Your task to perform on an android device: Open the SMS app Image 0: 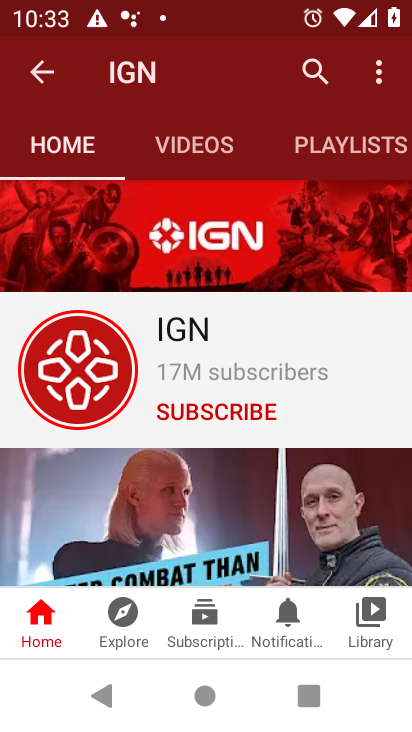
Step 0: press home button
Your task to perform on an android device: Open the SMS app Image 1: 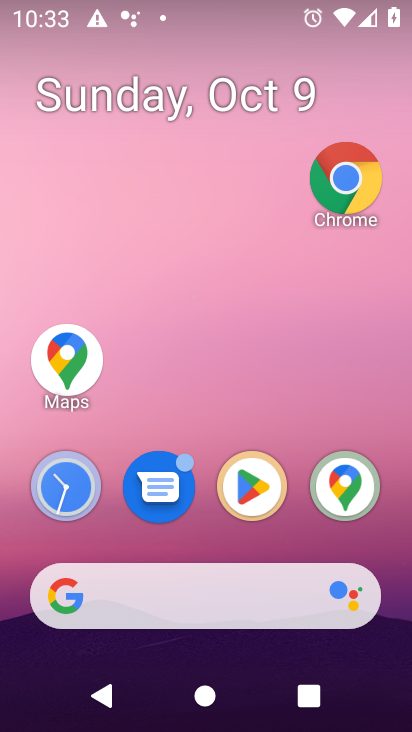
Step 1: click (155, 498)
Your task to perform on an android device: Open the SMS app Image 2: 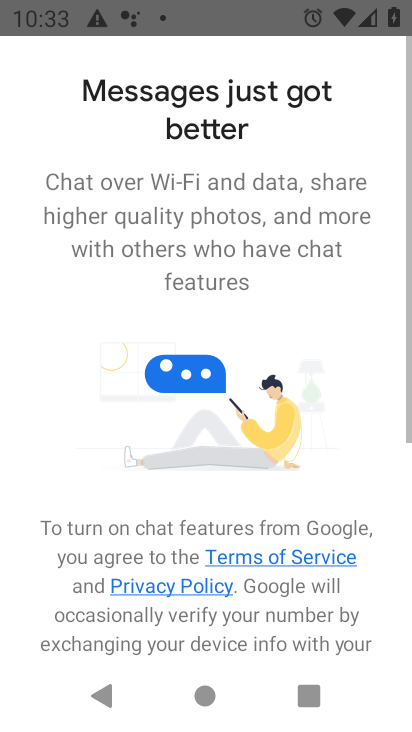
Step 2: drag from (197, 567) to (258, 114)
Your task to perform on an android device: Open the SMS app Image 3: 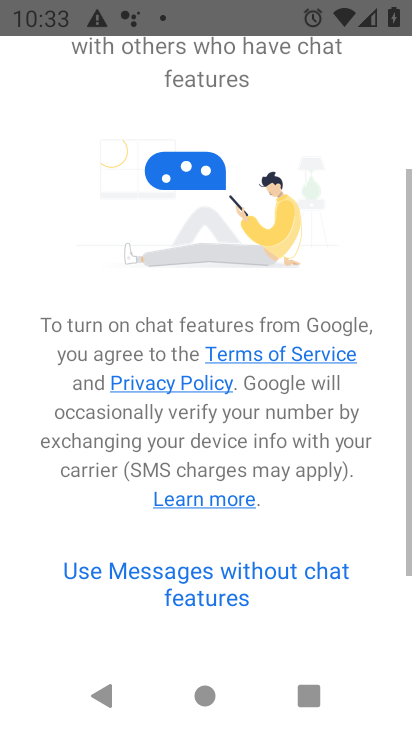
Step 3: drag from (262, 541) to (298, 254)
Your task to perform on an android device: Open the SMS app Image 4: 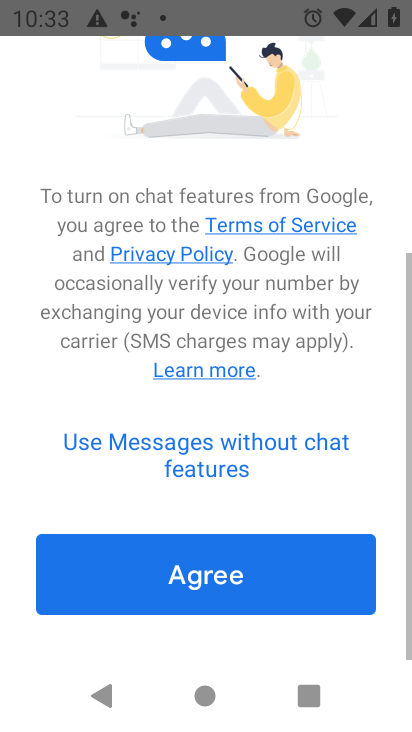
Step 4: click (261, 573)
Your task to perform on an android device: Open the SMS app Image 5: 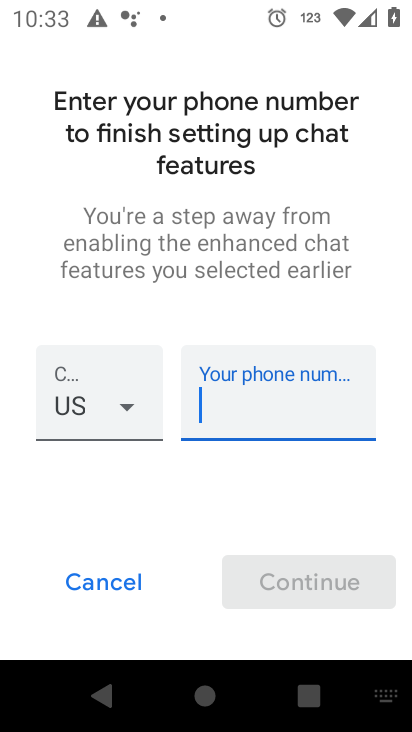
Step 5: click (119, 599)
Your task to perform on an android device: Open the SMS app Image 6: 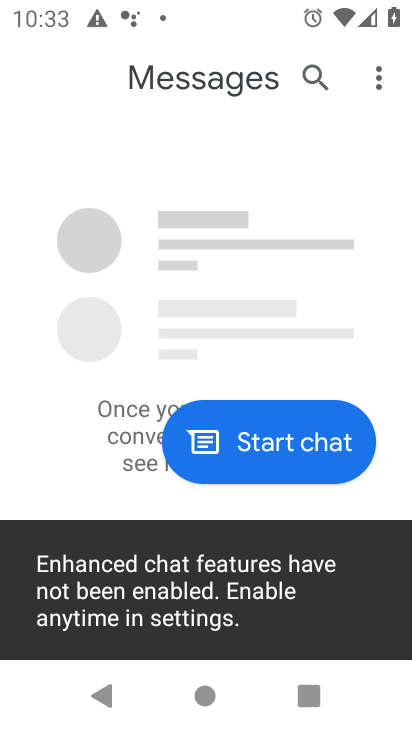
Step 6: task complete